Your task to perform on an android device: uninstall "YouTube Kids" Image 0: 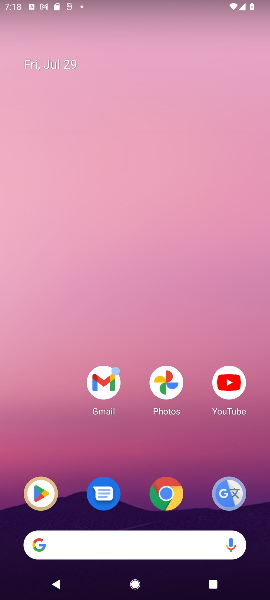
Step 0: drag from (154, 592) to (127, 47)
Your task to perform on an android device: uninstall "YouTube Kids" Image 1: 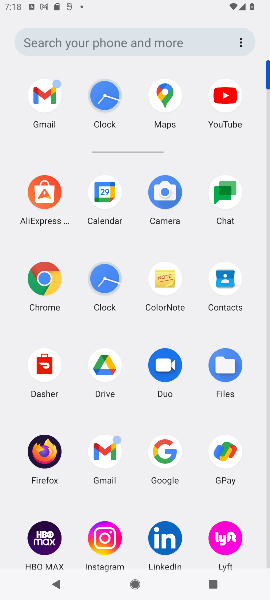
Step 1: drag from (191, 510) to (204, 172)
Your task to perform on an android device: uninstall "YouTube Kids" Image 2: 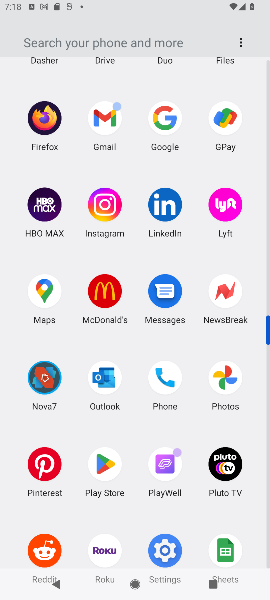
Step 2: drag from (196, 491) to (189, 154)
Your task to perform on an android device: uninstall "YouTube Kids" Image 3: 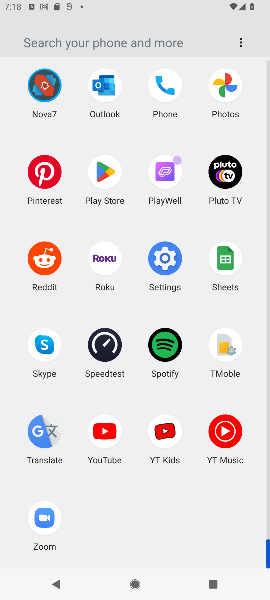
Step 3: click (109, 165)
Your task to perform on an android device: uninstall "YouTube Kids" Image 4: 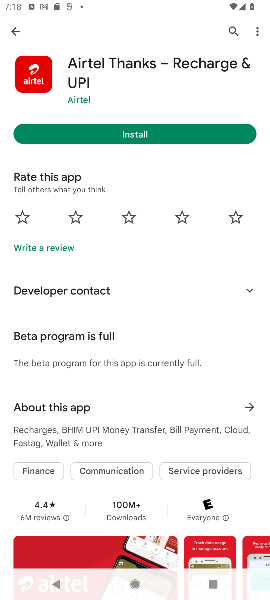
Step 4: click (123, 68)
Your task to perform on an android device: uninstall "YouTube Kids" Image 5: 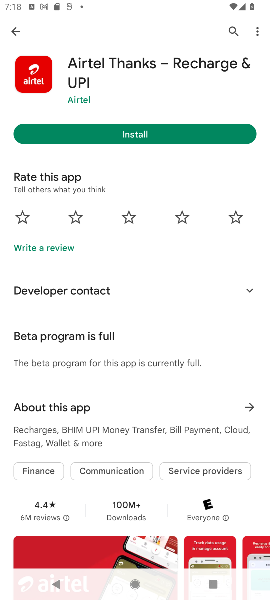
Step 5: task complete